Your task to perform on an android device: turn on showing notifications on the lock screen Image 0: 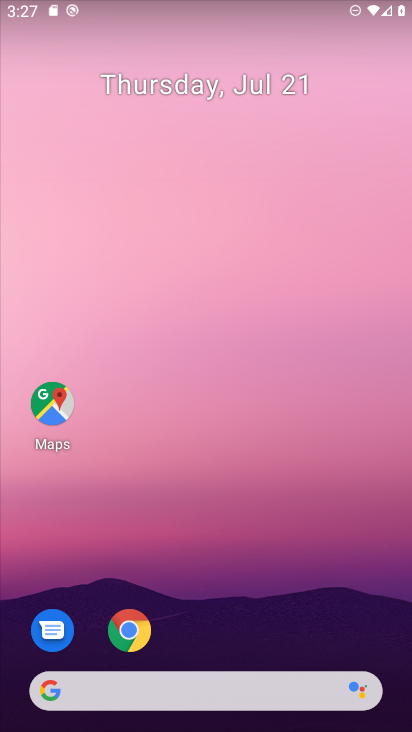
Step 0: drag from (197, 646) to (328, 51)
Your task to perform on an android device: turn on showing notifications on the lock screen Image 1: 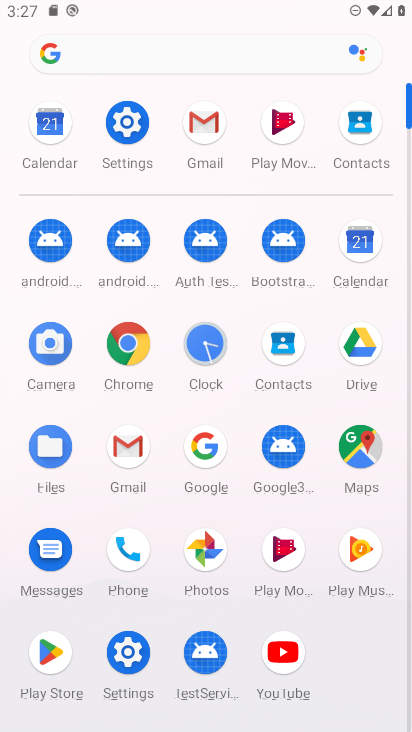
Step 1: click (117, 126)
Your task to perform on an android device: turn on showing notifications on the lock screen Image 2: 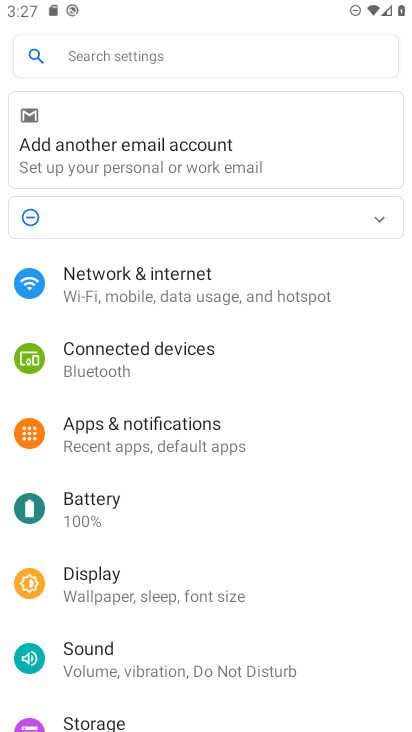
Step 2: click (187, 420)
Your task to perform on an android device: turn on showing notifications on the lock screen Image 3: 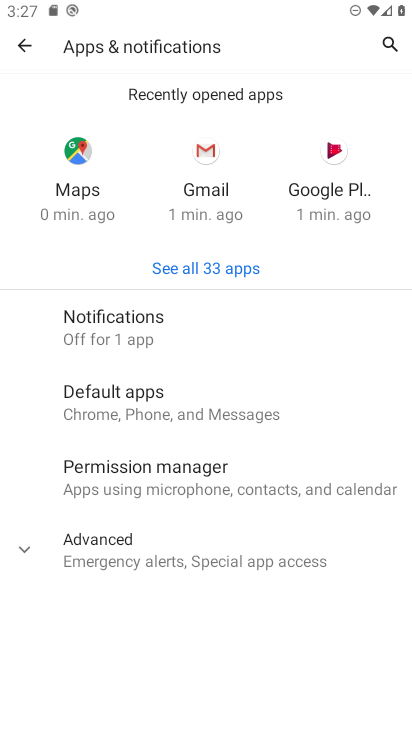
Step 3: click (123, 316)
Your task to perform on an android device: turn on showing notifications on the lock screen Image 4: 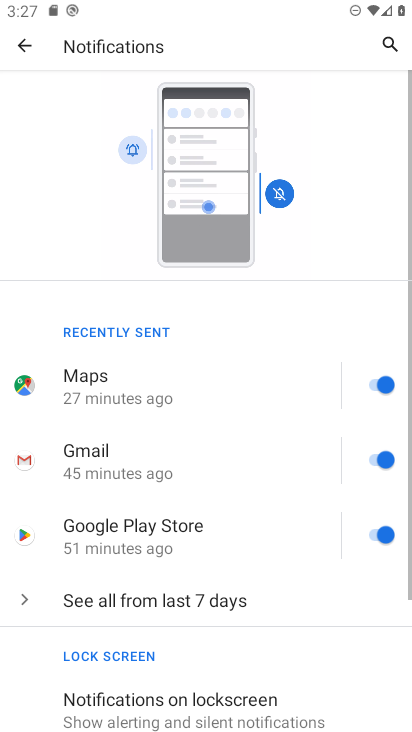
Step 4: click (159, 722)
Your task to perform on an android device: turn on showing notifications on the lock screen Image 5: 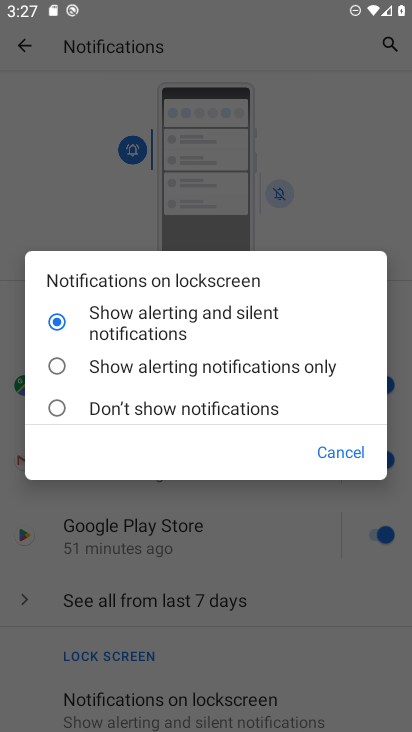
Step 5: click (58, 322)
Your task to perform on an android device: turn on showing notifications on the lock screen Image 6: 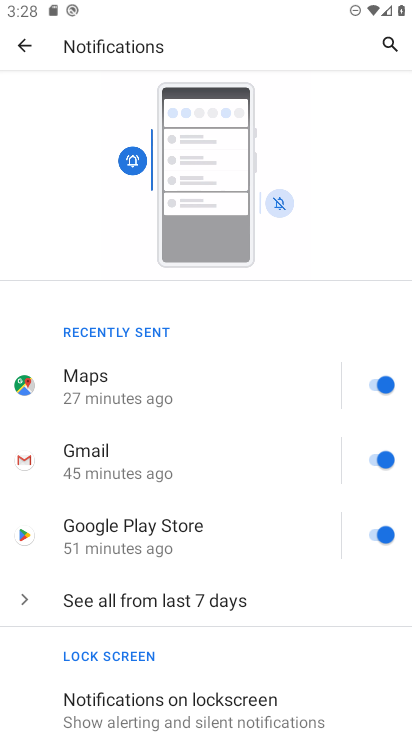
Step 6: task complete